Your task to perform on an android device: What is the news today? Image 0: 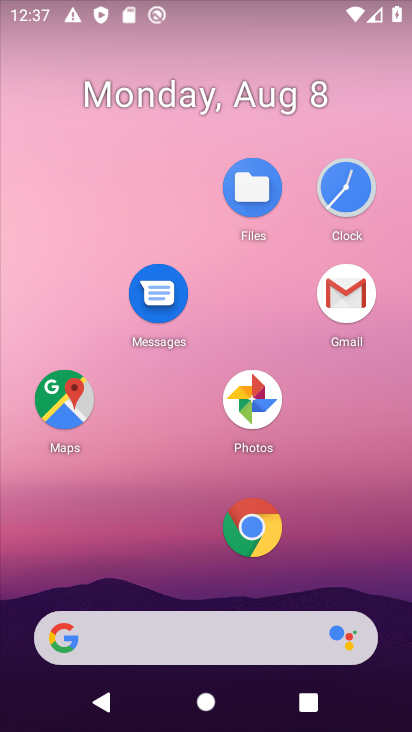
Step 0: click (148, 629)
Your task to perform on an android device: What is the news today? Image 1: 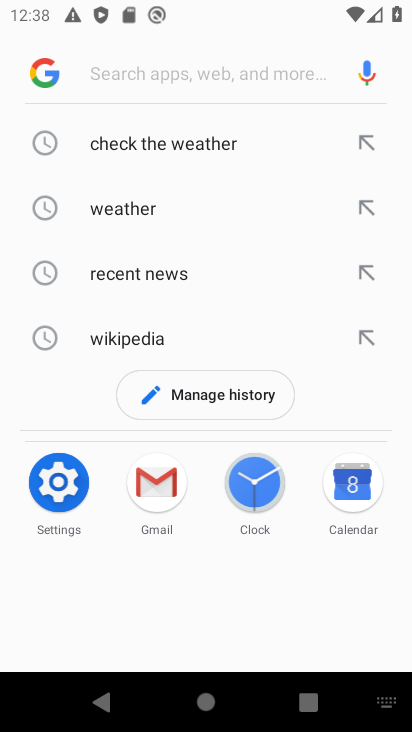
Step 1: type "What is the news today?"
Your task to perform on an android device: What is the news today? Image 2: 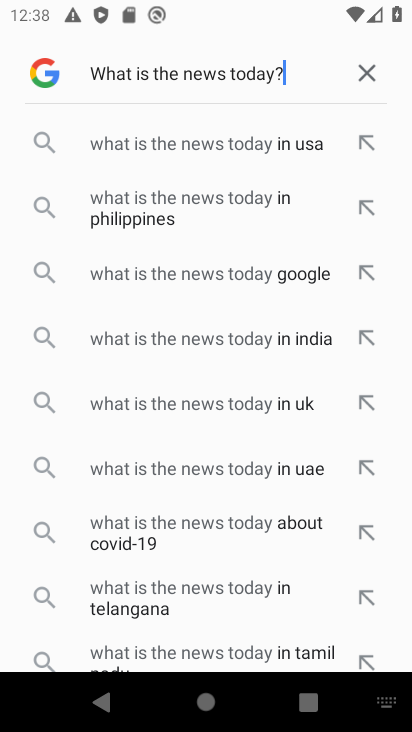
Step 2: press enter
Your task to perform on an android device: What is the news today? Image 3: 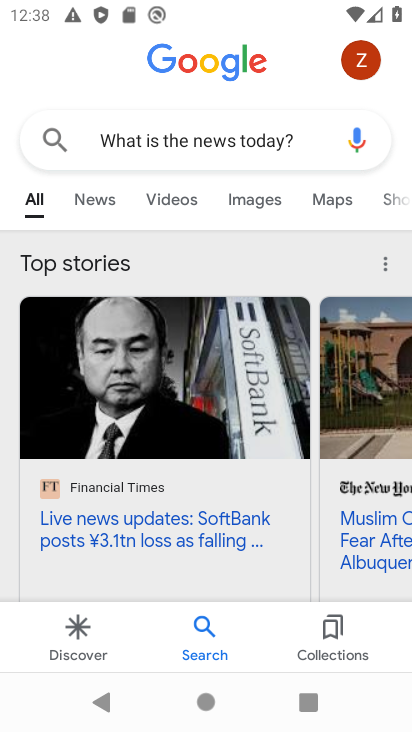
Step 3: task complete